Your task to perform on an android device: delete a single message in the gmail app Image 0: 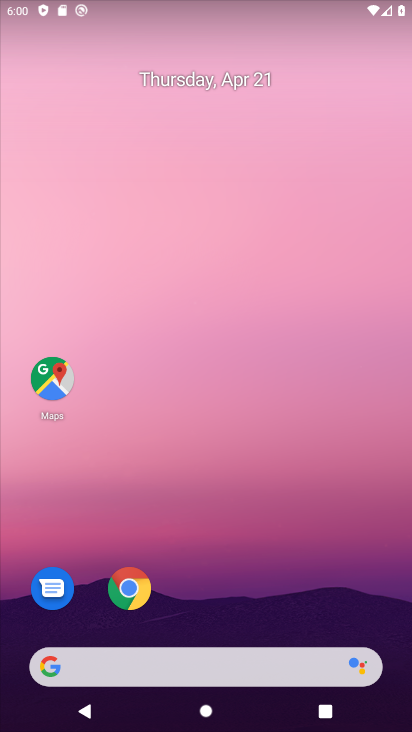
Step 0: drag from (276, 600) to (280, 196)
Your task to perform on an android device: delete a single message in the gmail app Image 1: 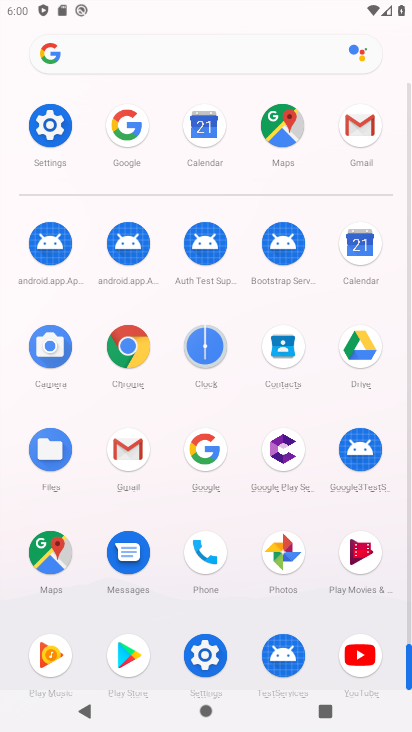
Step 1: click (364, 146)
Your task to perform on an android device: delete a single message in the gmail app Image 2: 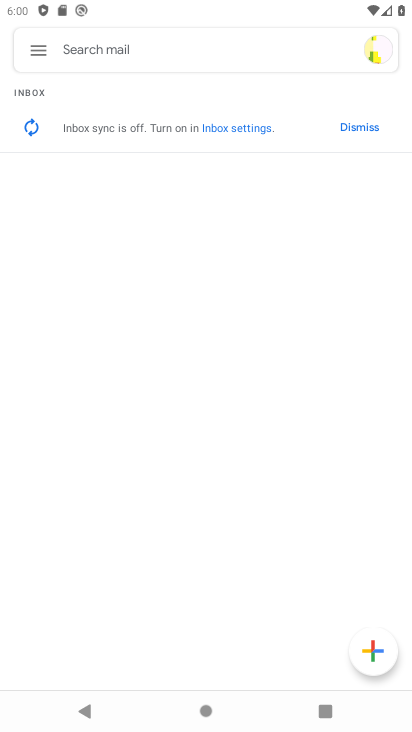
Step 2: press home button
Your task to perform on an android device: delete a single message in the gmail app Image 3: 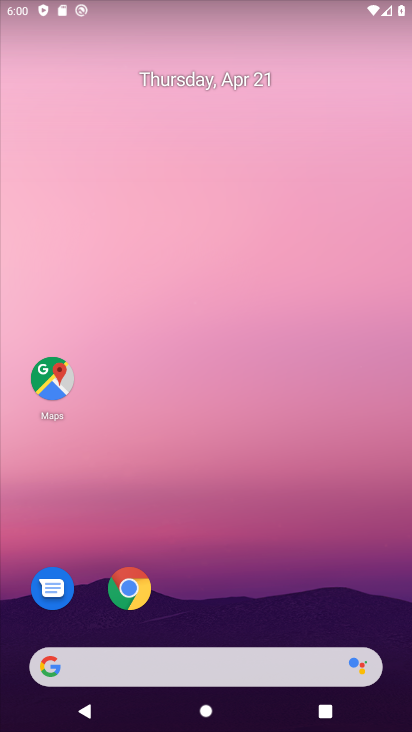
Step 3: drag from (244, 570) to (277, 220)
Your task to perform on an android device: delete a single message in the gmail app Image 4: 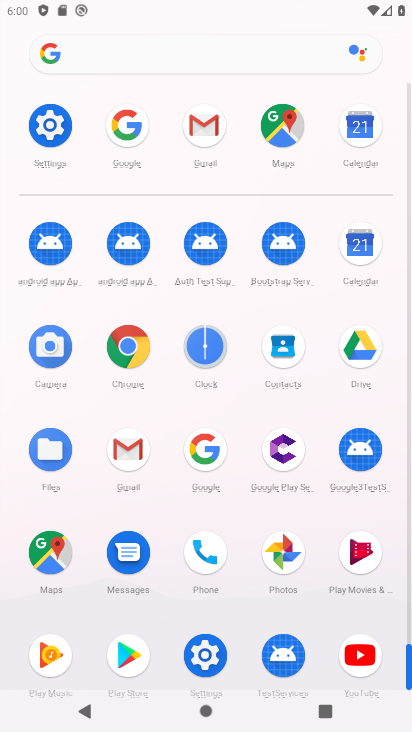
Step 4: click (213, 157)
Your task to perform on an android device: delete a single message in the gmail app Image 5: 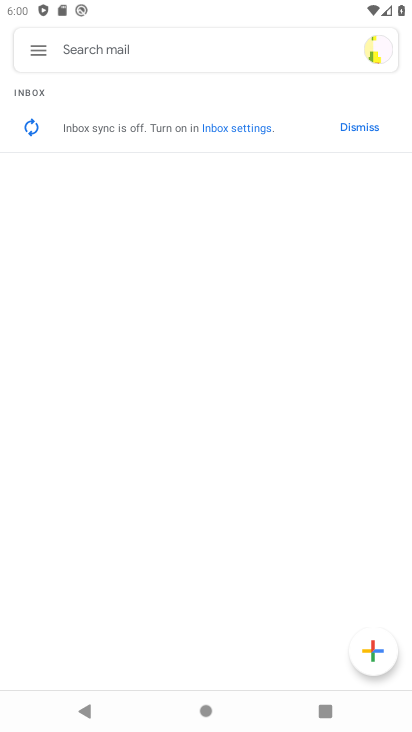
Step 5: click (38, 60)
Your task to perform on an android device: delete a single message in the gmail app Image 6: 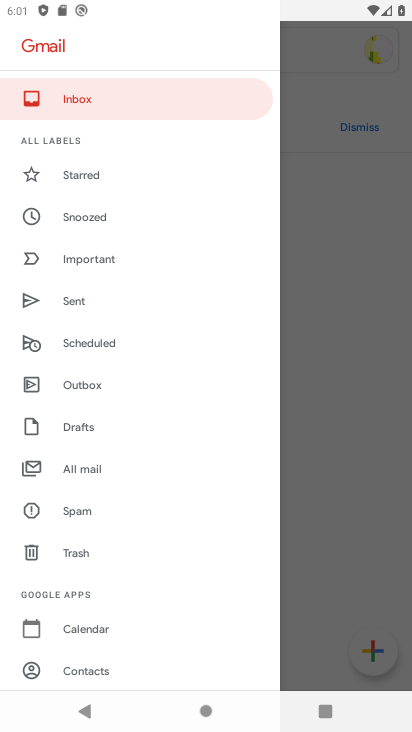
Step 6: click (72, 467)
Your task to perform on an android device: delete a single message in the gmail app Image 7: 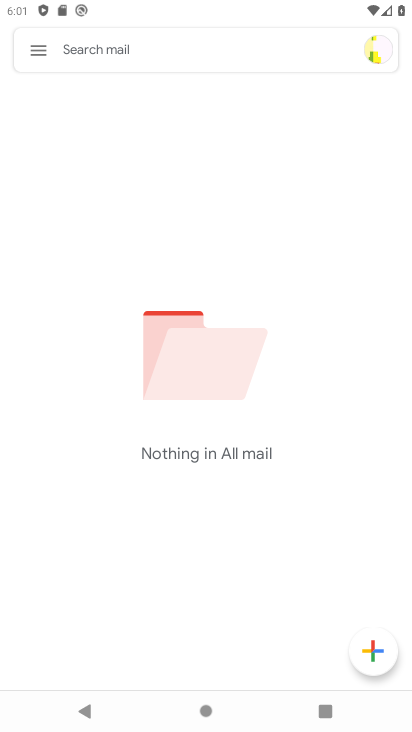
Step 7: task complete